Your task to perform on an android device: Open network settings Image 0: 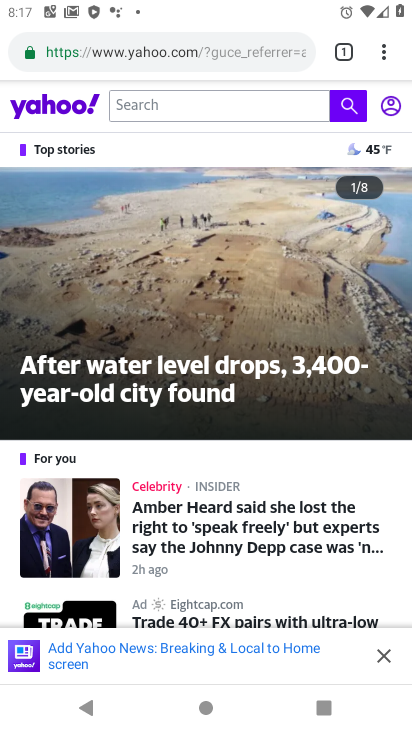
Step 0: press back button
Your task to perform on an android device: Open network settings Image 1: 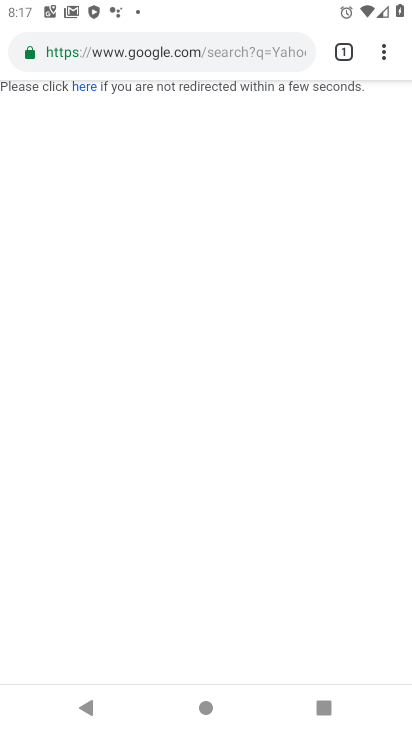
Step 1: press back button
Your task to perform on an android device: Open network settings Image 2: 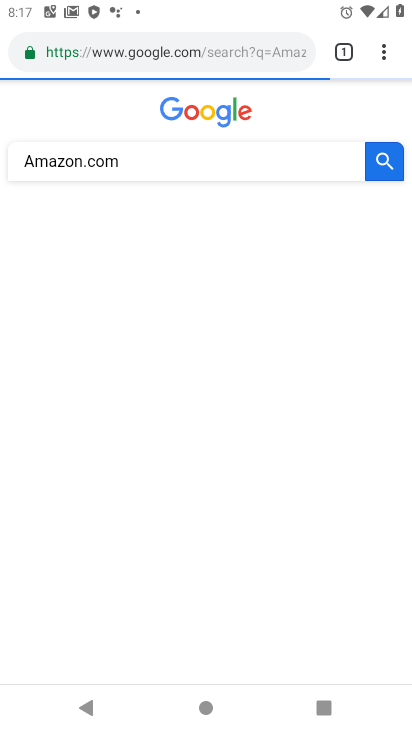
Step 2: press back button
Your task to perform on an android device: Open network settings Image 3: 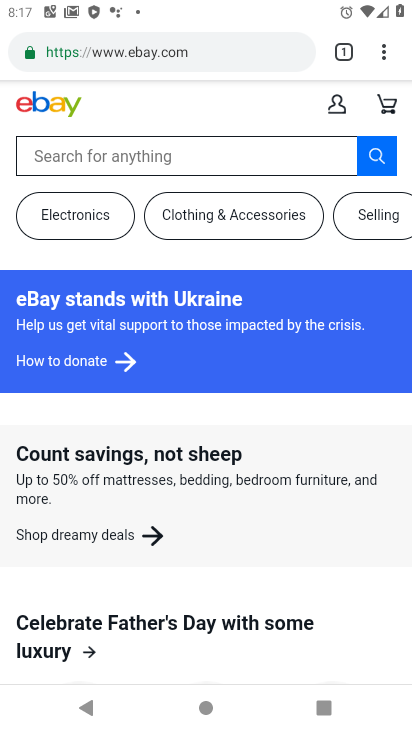
Step 3: press back button
Your task to perform on an android device: Open network settings Image 4: 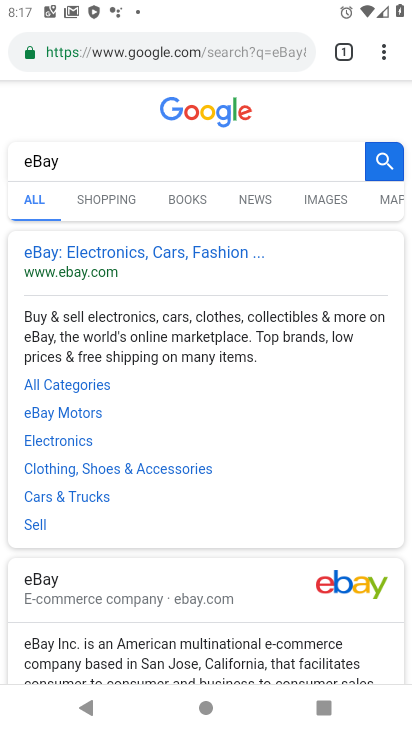
Step 4: press back button
Your task to perform on an android device: Open network settings Image 5: 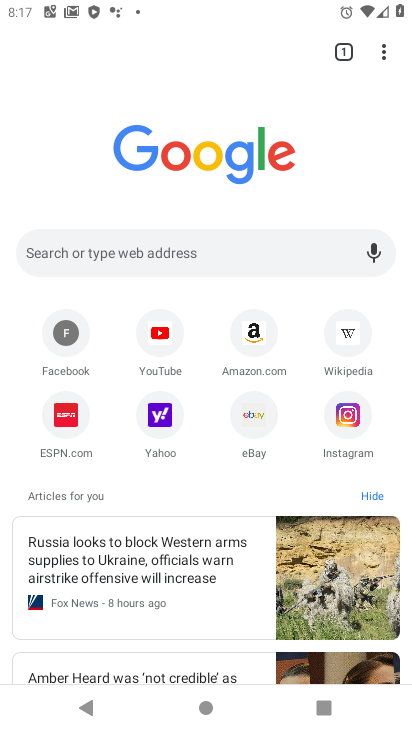
Step 5: press back button
Your task to perform on an android device: Open network settings Image 6: 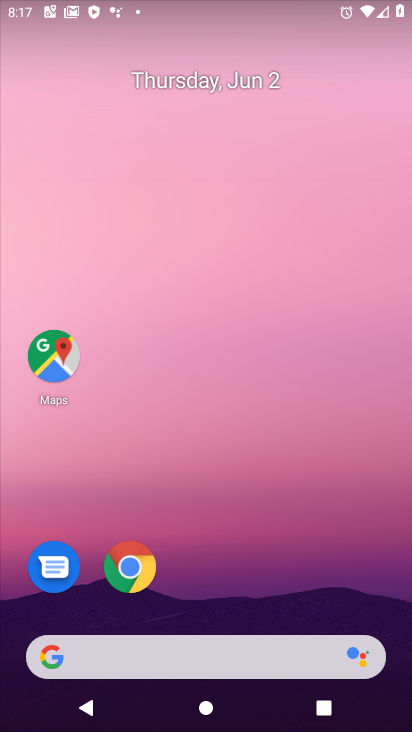
Step 6: drag from (255, 539) to (263, 196)
Your task to perform on an android device: Open network settings Image 7: 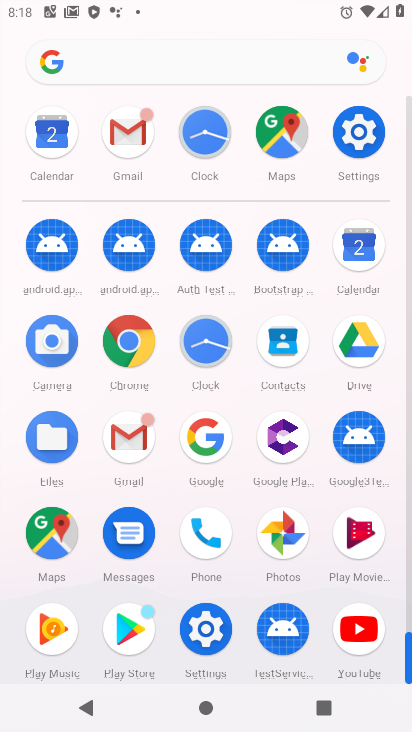
Step 7: click (357, 131)
Your task to perform on an android device: Open network settings Image 8: 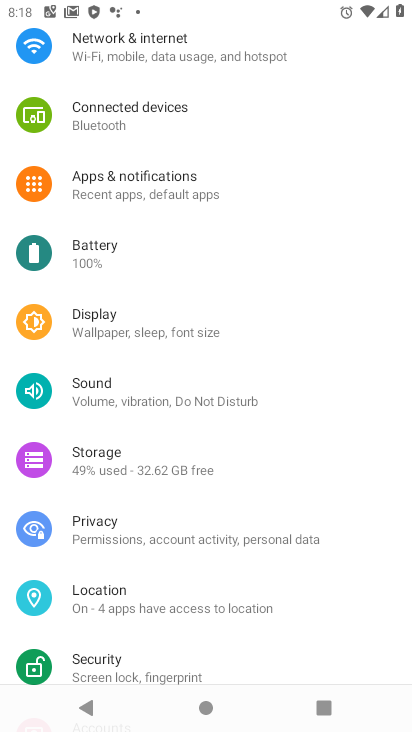
Step 8: click (159, 65)
Your task to perform on an android device: Open network settings Image 9: 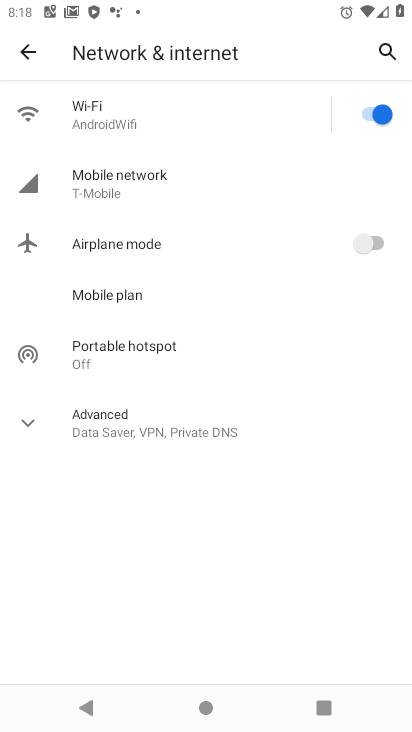
Step 9: click (116, 181)
Your task to perform on an android device: Open network settings Image 10: 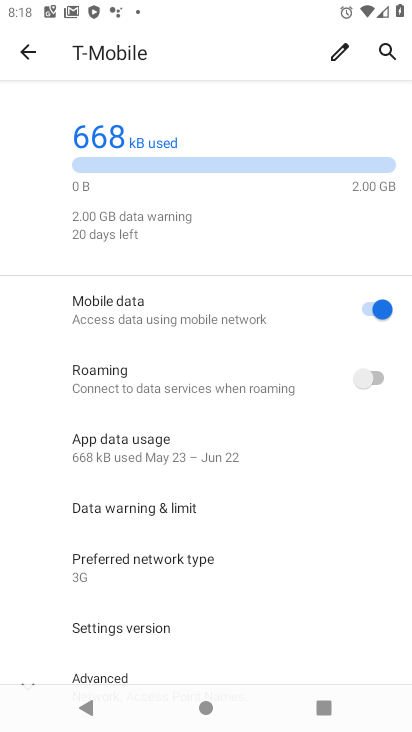
Step 10: task complete